Your task to perform on an android device: delete browsing data in the chrome app Image 0: 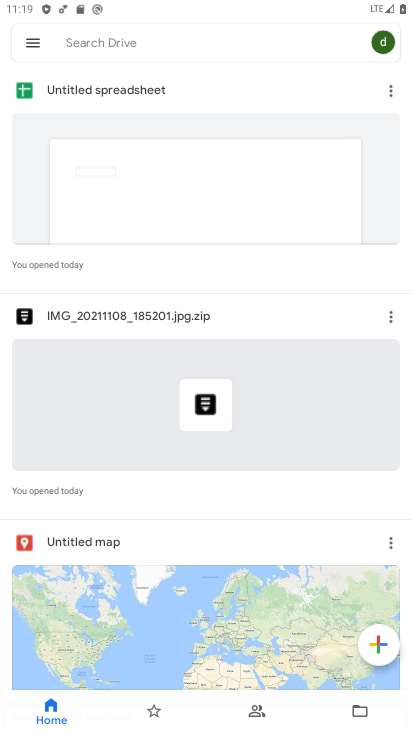
Step 0: press home button
Your task to perform on an android device: delete browsing data in the chrome app Image 1: 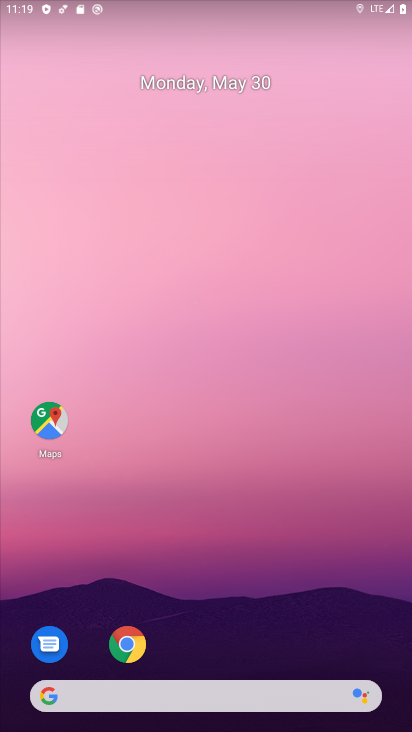
Step 1: drag from (230, 651) to (224, 163)
Your task to perform on an android device: delete browsing data in the chrome app Image 2: 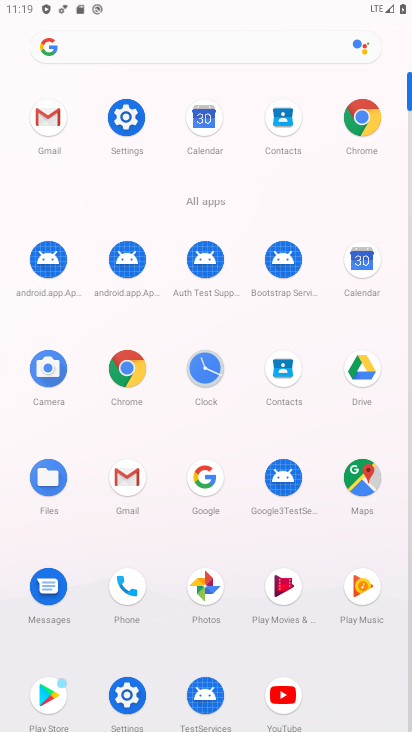
Step 2: click (359, 118)
Your task to perform on an android device: delete browsing data in the chrome app Image 3: 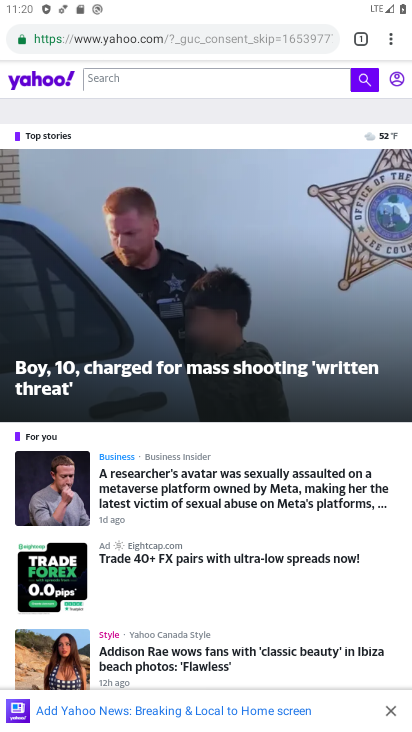
Step 3: drag from (386, 37) to (312, 481)
Your task to perform on an android device: delete browsing data in the chrome app Image 4: 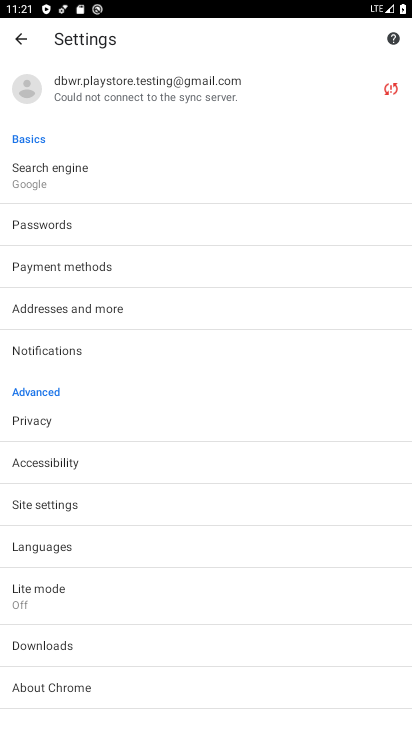
Step 4: click (44, 429)
Your task to perform on an android device: delete browsing data in the chrome app Image 5: 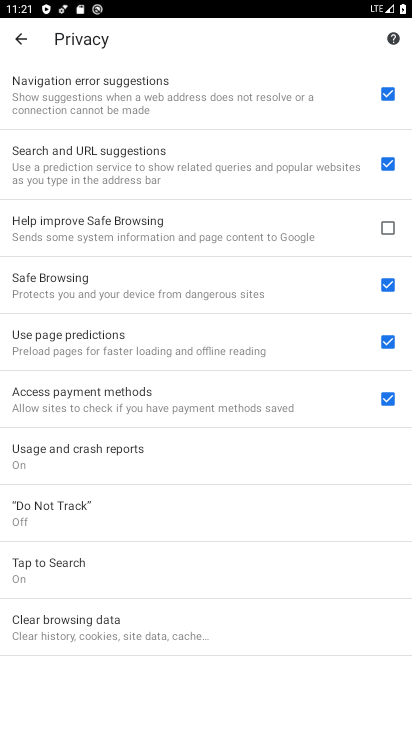
Step 5: click (75, 620)
Your task to perform on an android device: delete browsing data in the chrome app Image 6: 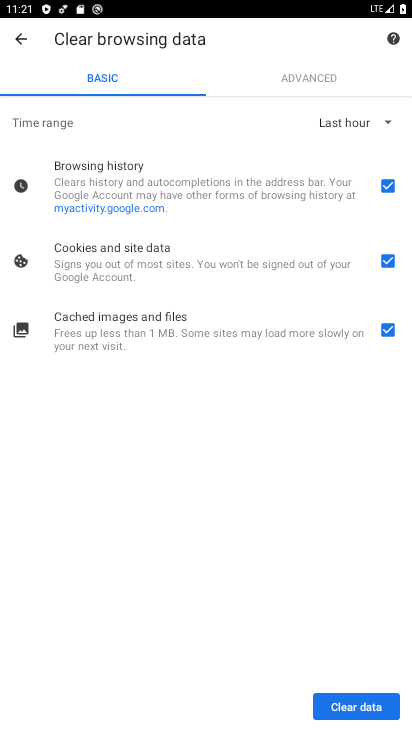
Step 6: click (368, 706)
Your task to perform on an android device: delete browsing data in the chrome app Image 7: 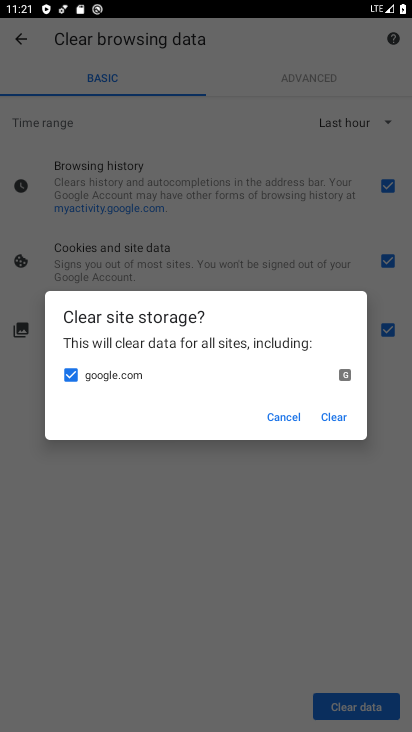
Step 7: click (339, 423)
Your task to perform on an android device: delete browsing data in the chrome app Image 8: 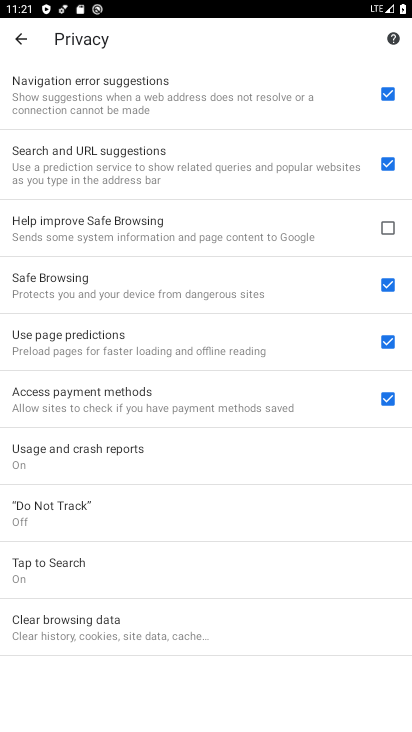
Step 8: click (317, 631)
Your task to perform on an android device: delete browsing data in the chrome app Image 9: 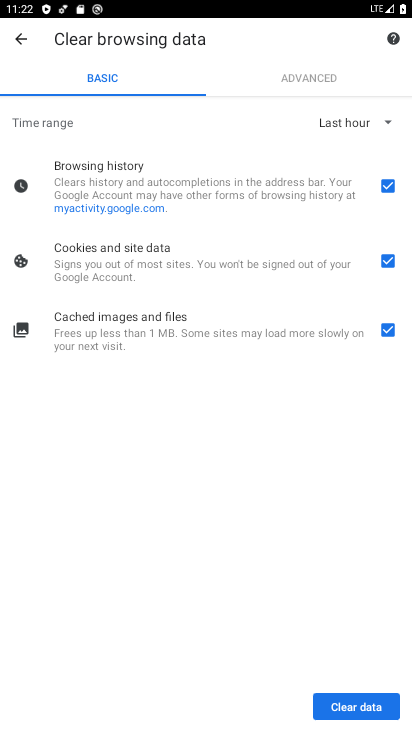
Step 9: click (351, 698)
Your task to perform on an android device: delete browsing data in the chrome app Image 10: 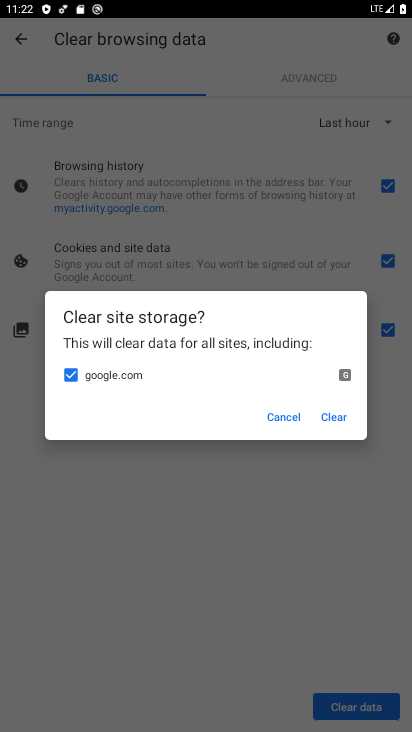
Step 10: click (330, 414)
Your task to perform on an android device: delete browsing data in the chrome app Image 11: 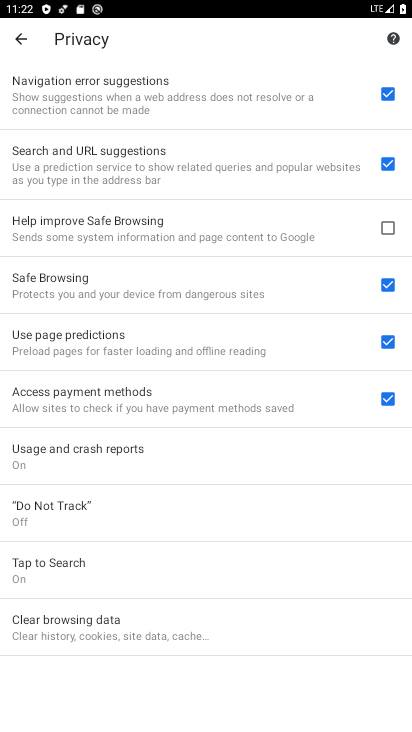
Step 11: task complete